Your task to perform on an android device: Add "razer kraken" to the cart on ebay, then select checkout. Image 0: 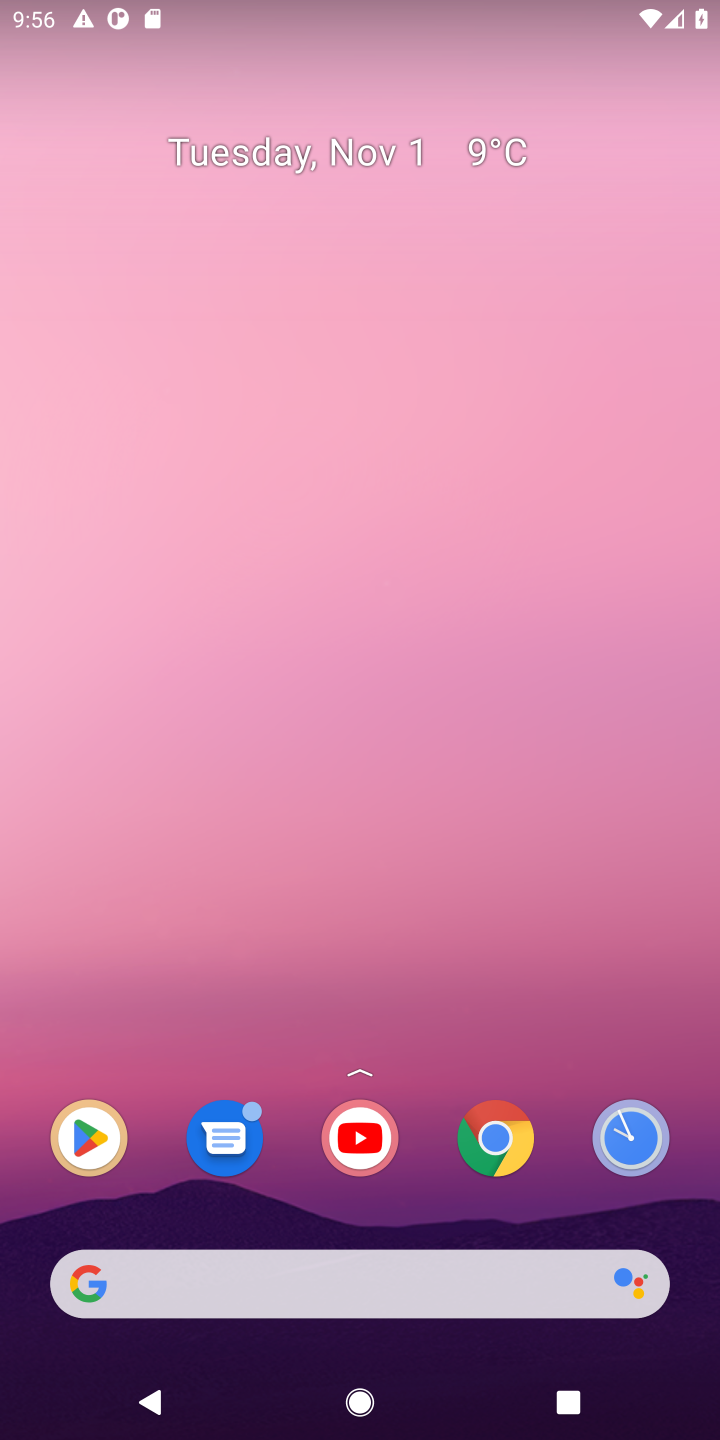
Step 0: press home button
Your task to perform on an android device: Add "razer kraken" to the cart on ebay, then select checkout. Image 1: 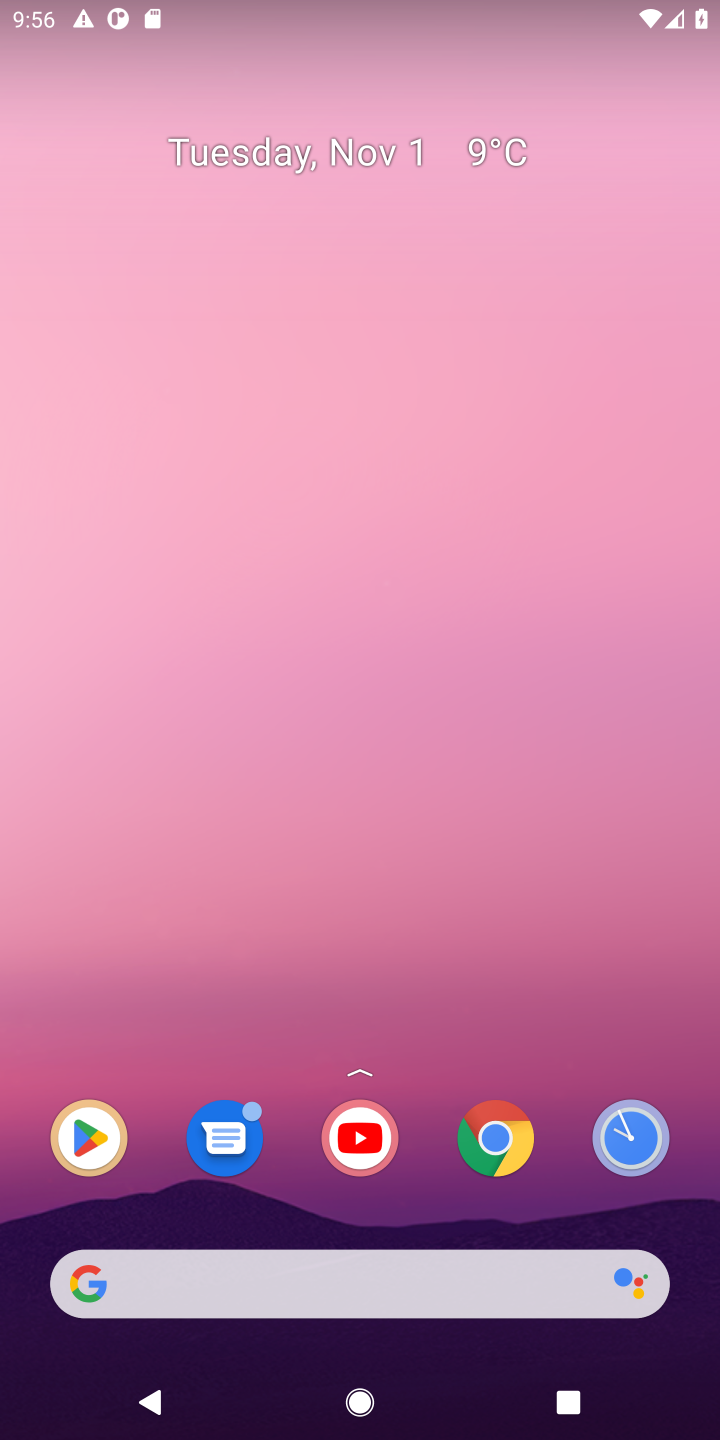
Step 1: drag from (471, 366) to (487, 45)
Your task to perform on an android device: Add "razer kraken" to the cart on ebay, then select checkout. Image 2: 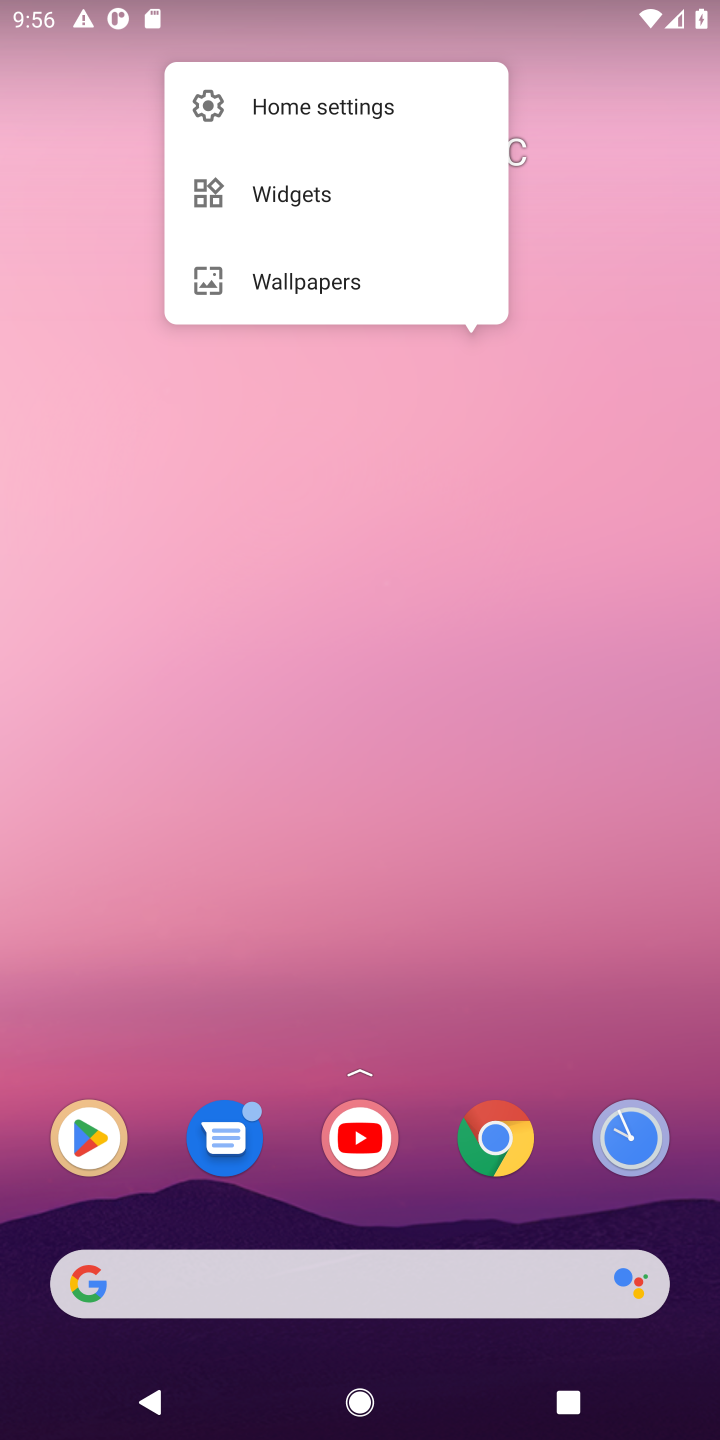
Step 2: click (332, 918)
Your task to perform on an android device: Add "razer kraken" to the cart on ebay, then select checkout. Image 3: 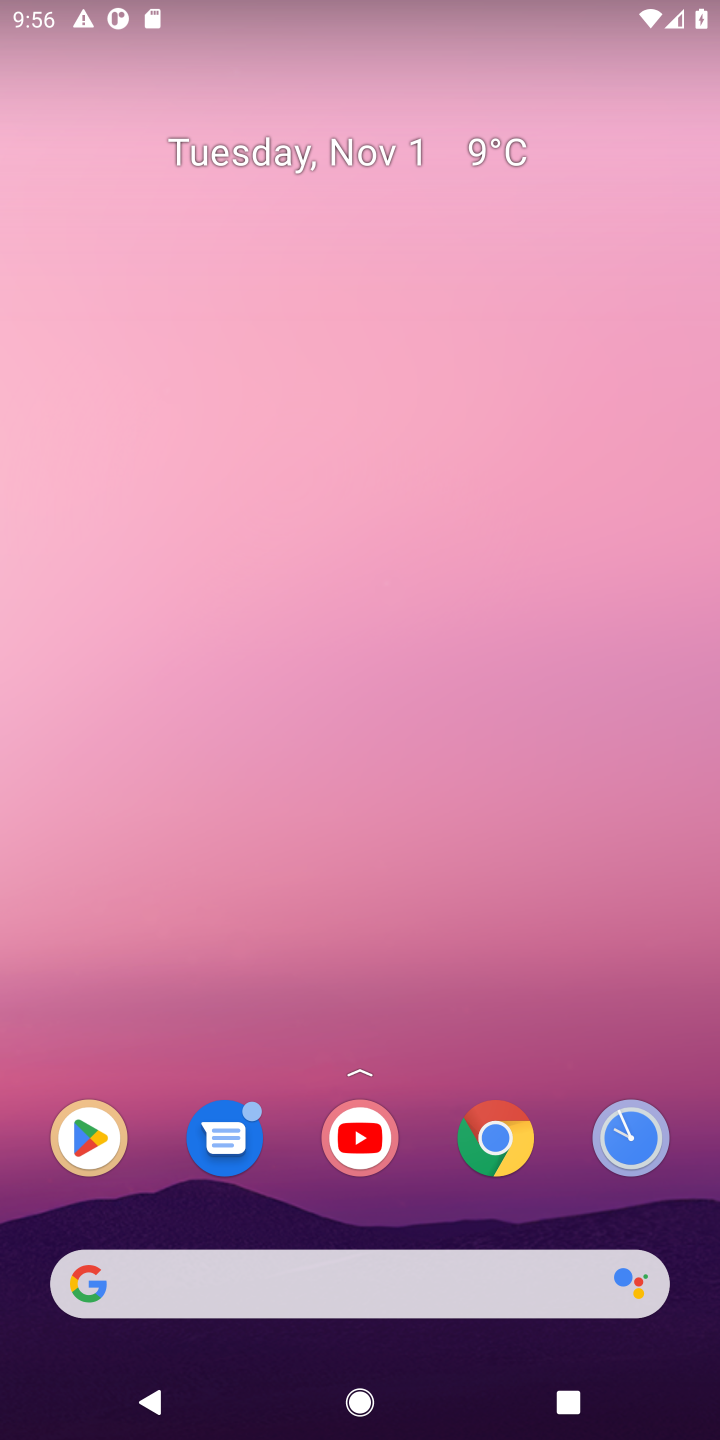
Step 3: drag from (424, 1076) to (395, 114)
Your task to perform on an android device: Add "razer kraken" to the cart on ebay, then select checkout. Image 4: 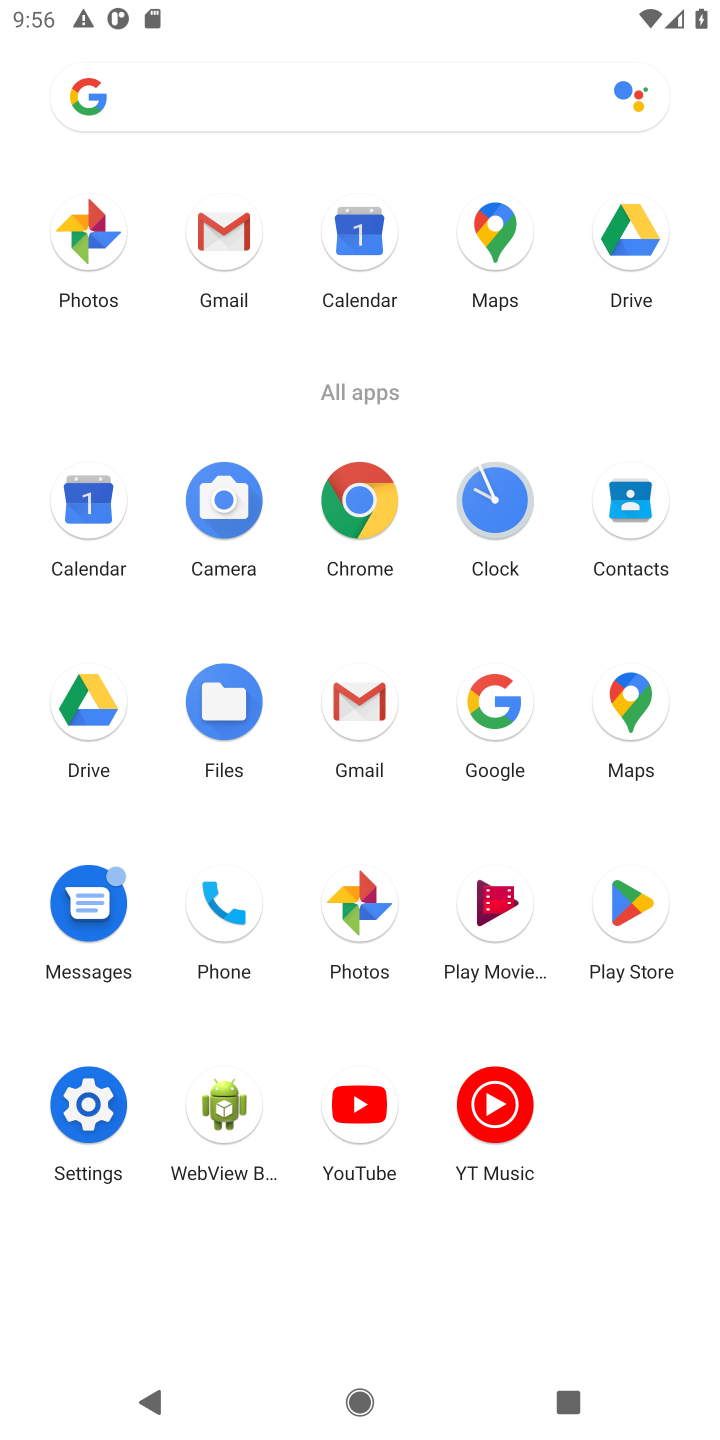
Step 4: click (356, 507)
Your task to perform on an android device: Add "razer kraken" to the cart on ebay, then select checkout. Image 5: 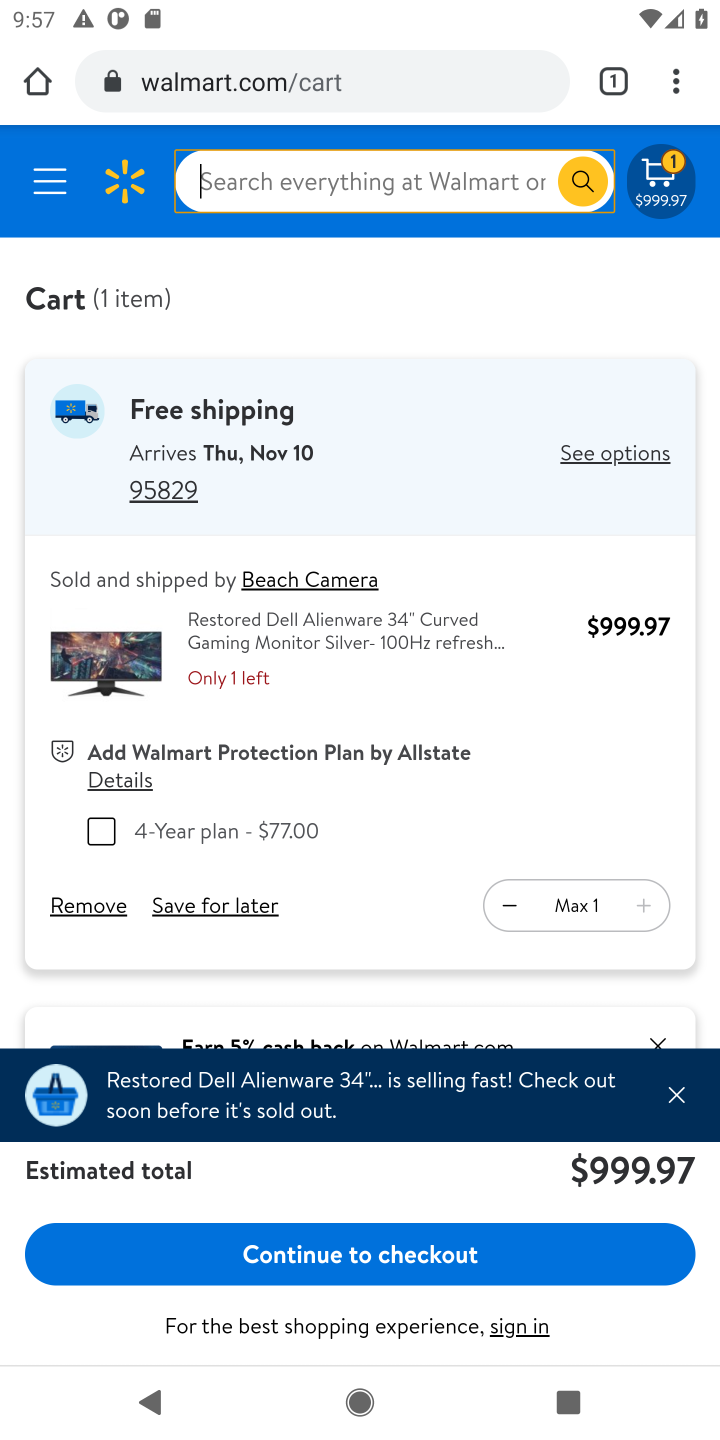
Step 5: click (194, 61)
Your task to perform on an android device: Add "razer kraken" to the cart on ebay, then select checkout. Image 6: 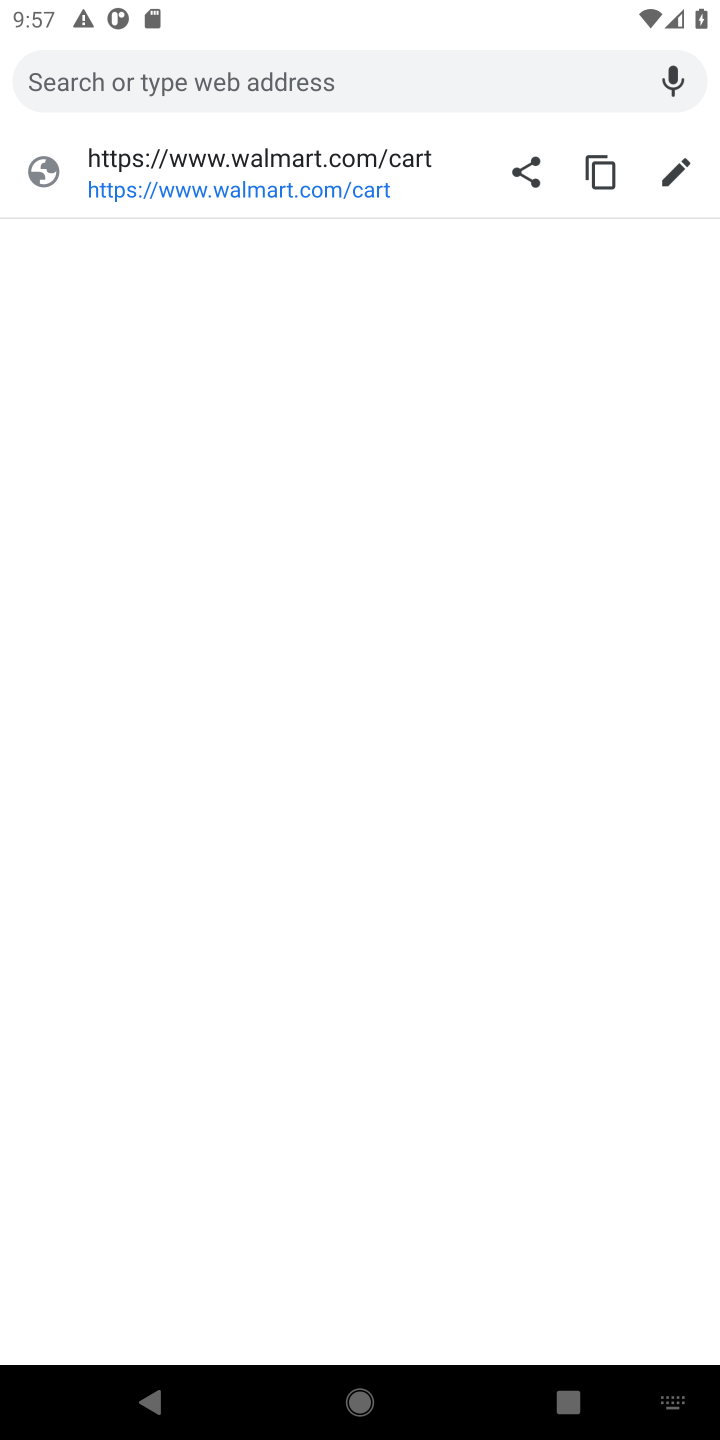
Step 6: type "ebay"
Your task to perform on an android device: Add "razer kraken" to the cart on ebay, then select checkout. Image 7: 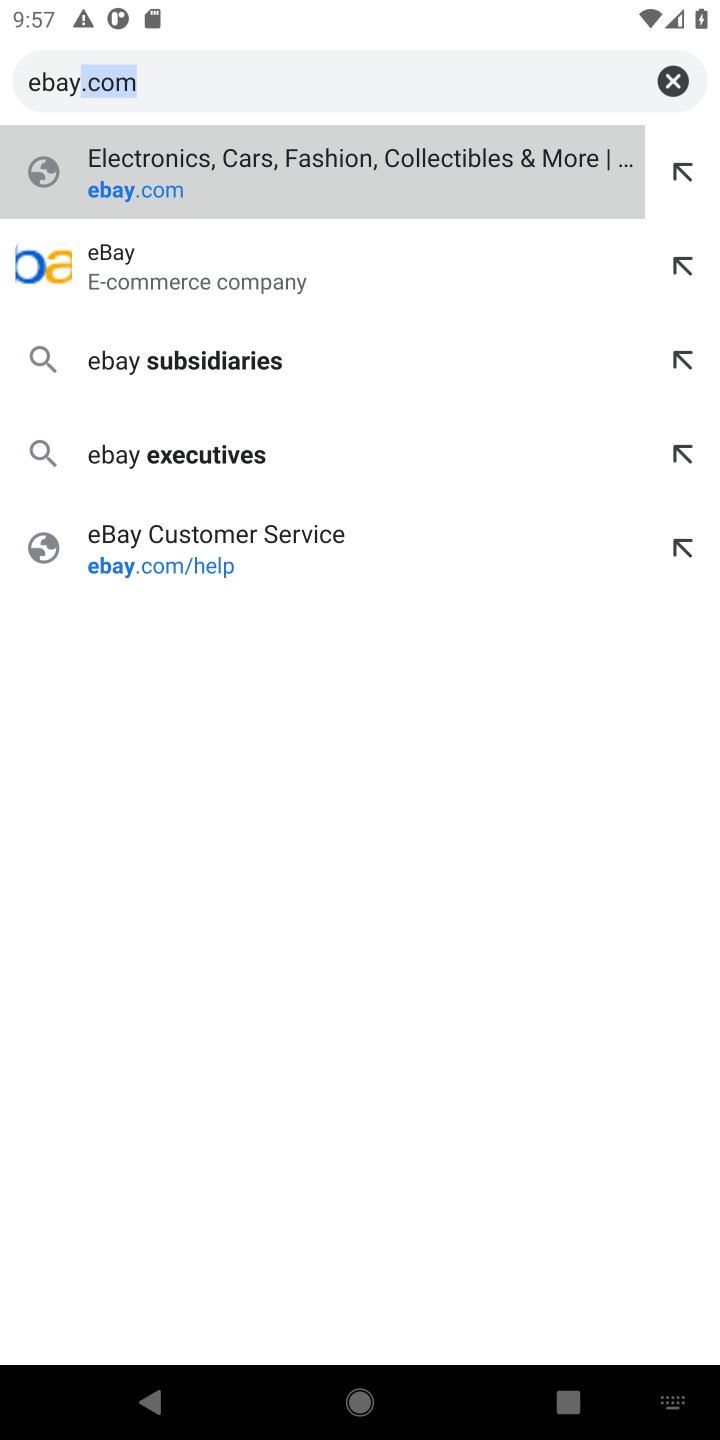
Step 7: click (163, 180)
Your task to perform on an android device: Add "razer kraken" to the cart on ebay, then select checkout. Image 8: 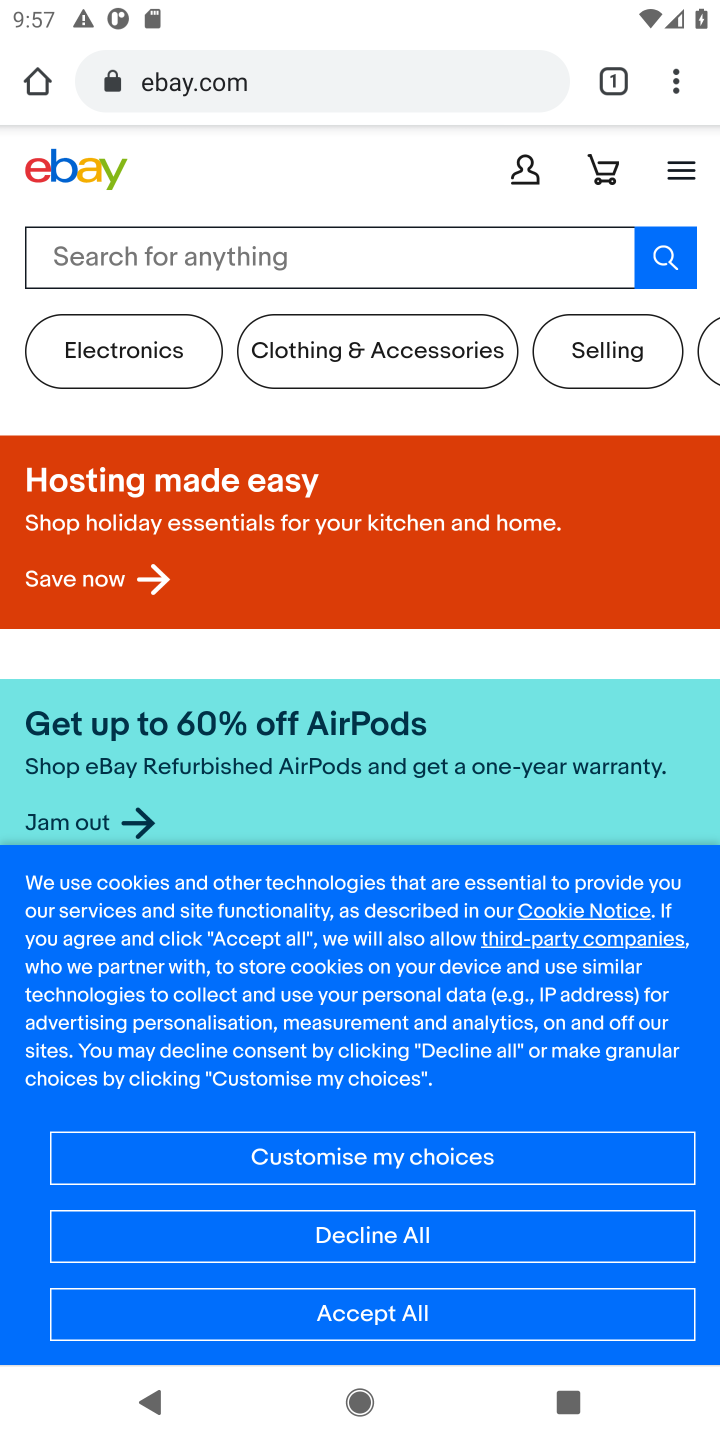
Step 8: click (170, 255)
Your task to perform on an android device: Add "razer kraken" to the cart on ebay, then select checkout. Image 9: 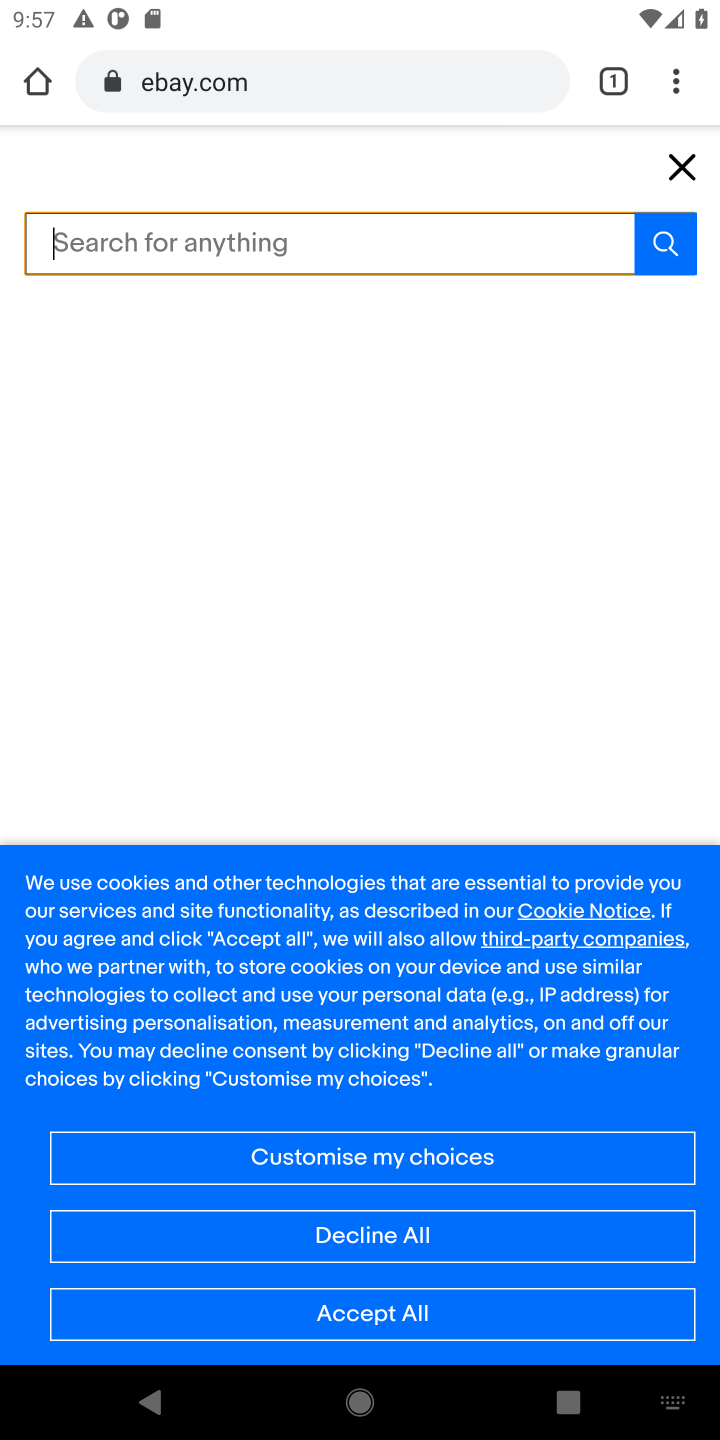
Step 9: type "razer kraken"
Your task to perform on an android device: Add "razer kraken" to the cart on ebay, then select checkout. Image 10: 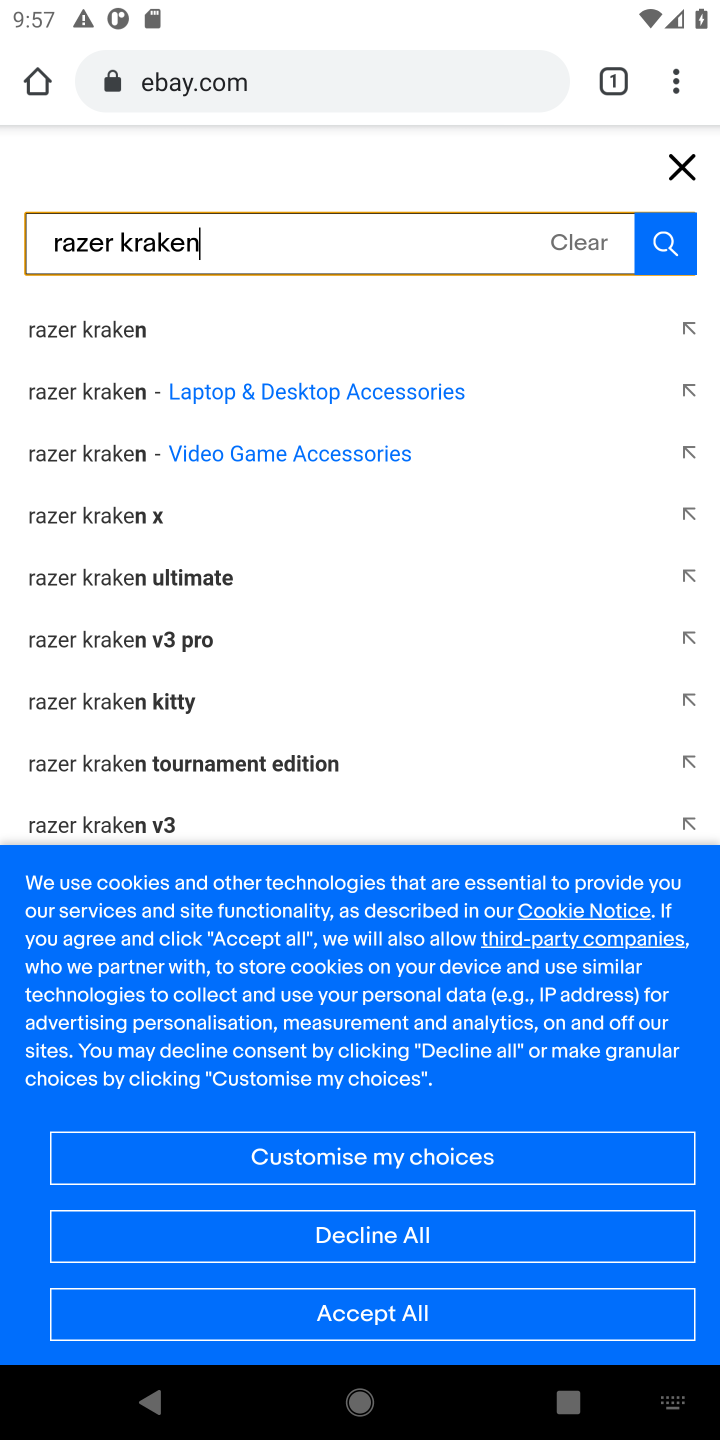
Step 10: click (93, 395)
Your task to perform on an android device: Add "razer kraken" to the cart on ebay, then select checkout. Image 11: 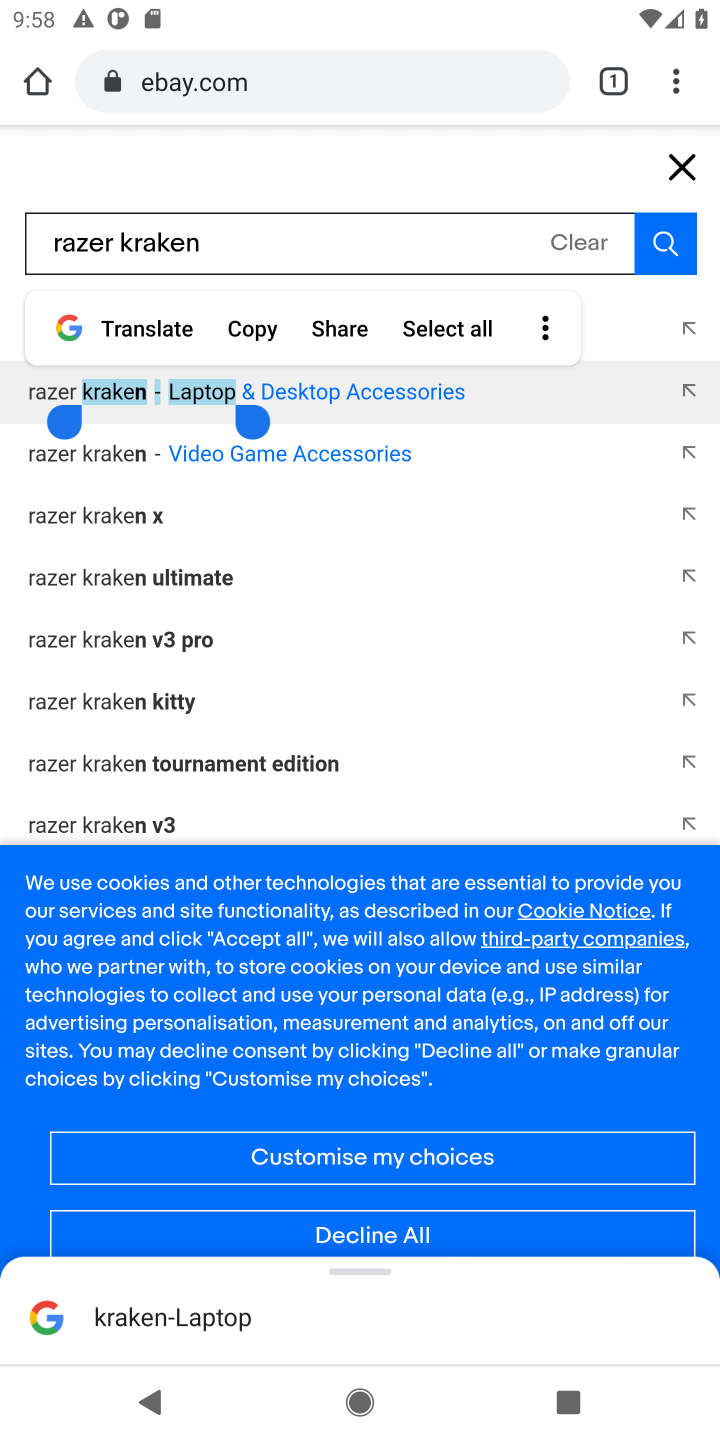
Step 11: click (437, 392)
Your task to perform on an android device: Add "razer kraken" to the cart on ebay, then select checkout. Image 12: 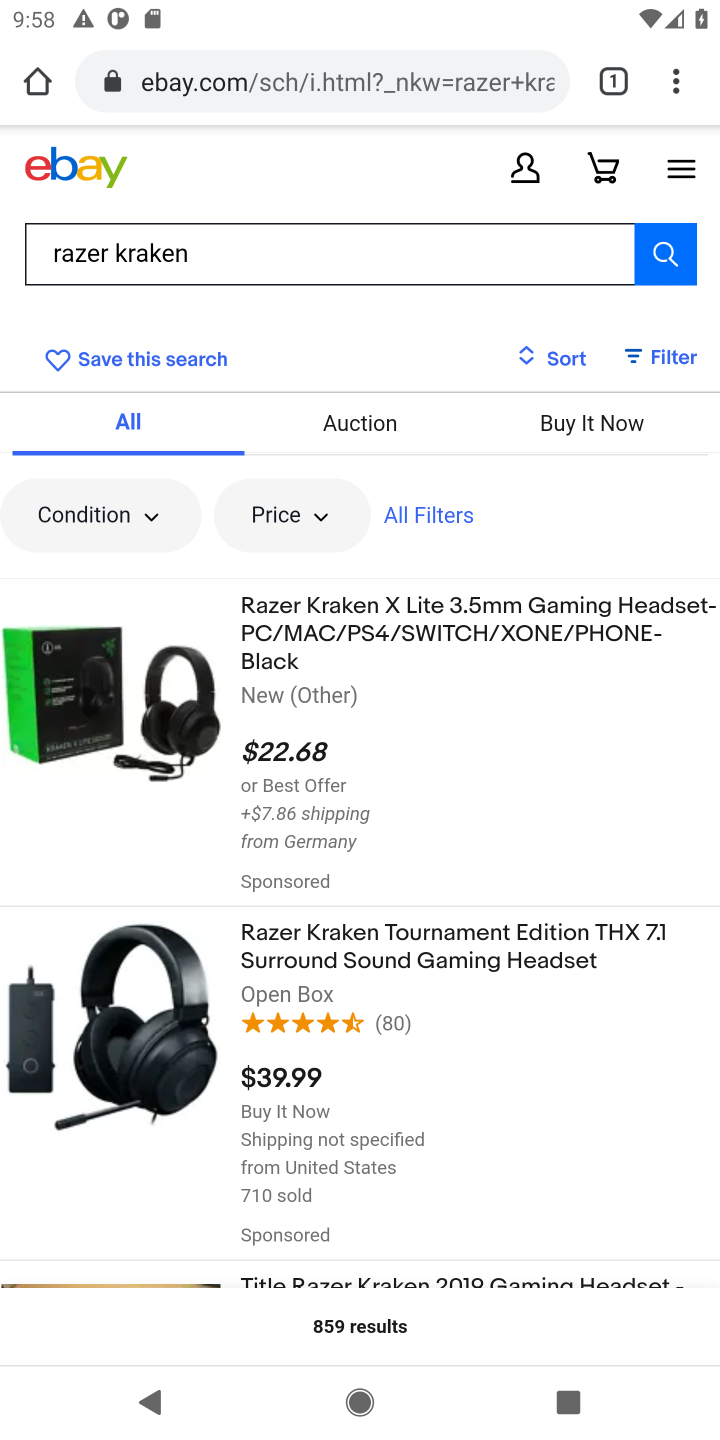
Step 12: click (345, 634)
Your task to perform on an android device: Add "razer kraken" to the cart on ebay, then select checkout. Image 13: 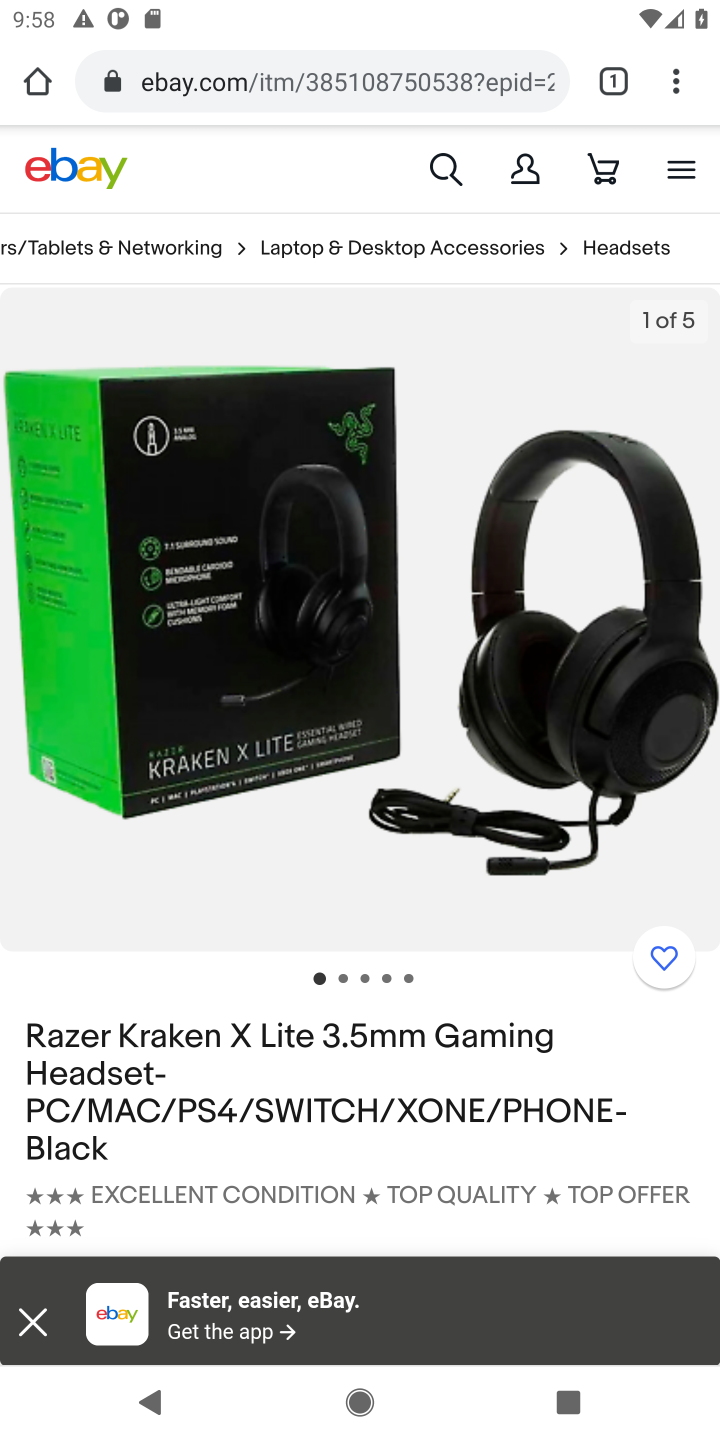
Step 13: drag from (379, 1139) to (390, 314)
Your task to perform on an android device: Add "razer kraken" to the cart on ebay, then select checkout. Image 14: 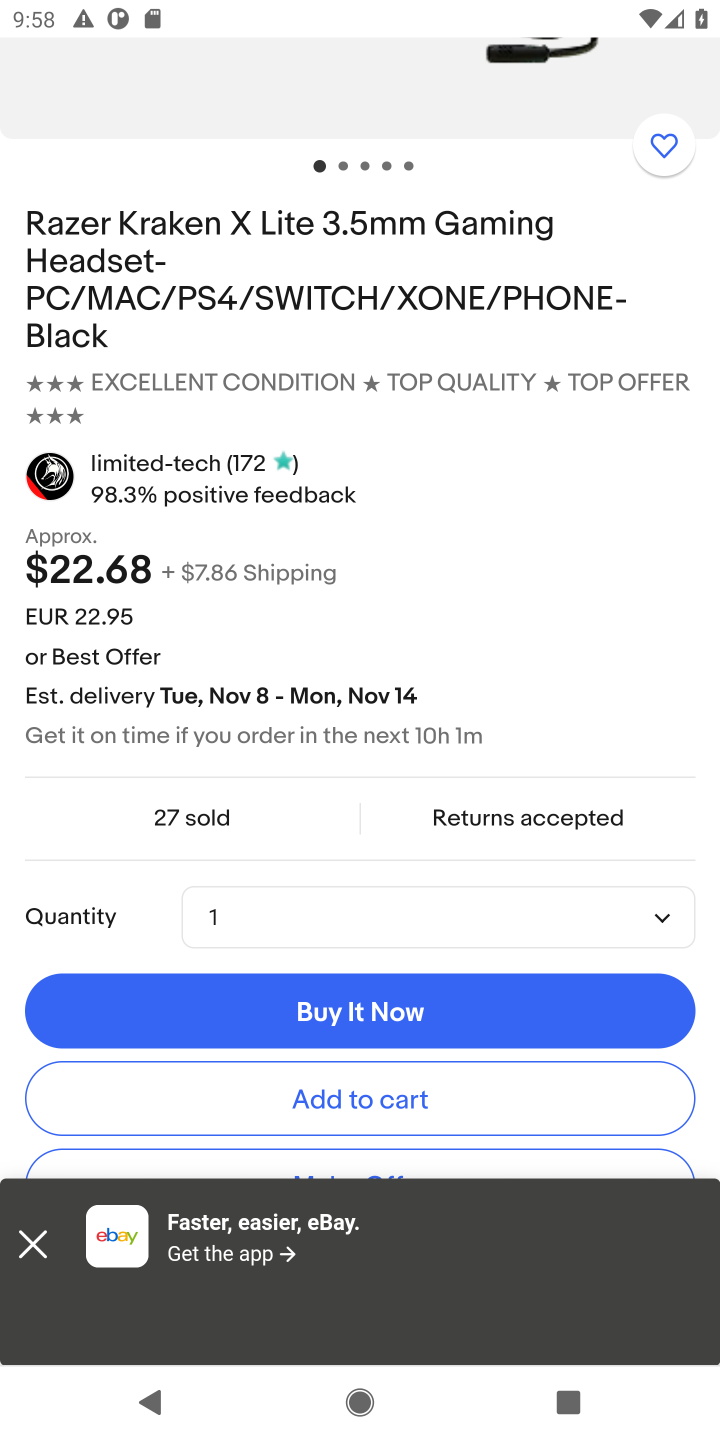
Step 14: click (355, 1091)
Your task to perform on an android device: Add "razer kraken" to the cart on ebay, then select checkout. Image 15: 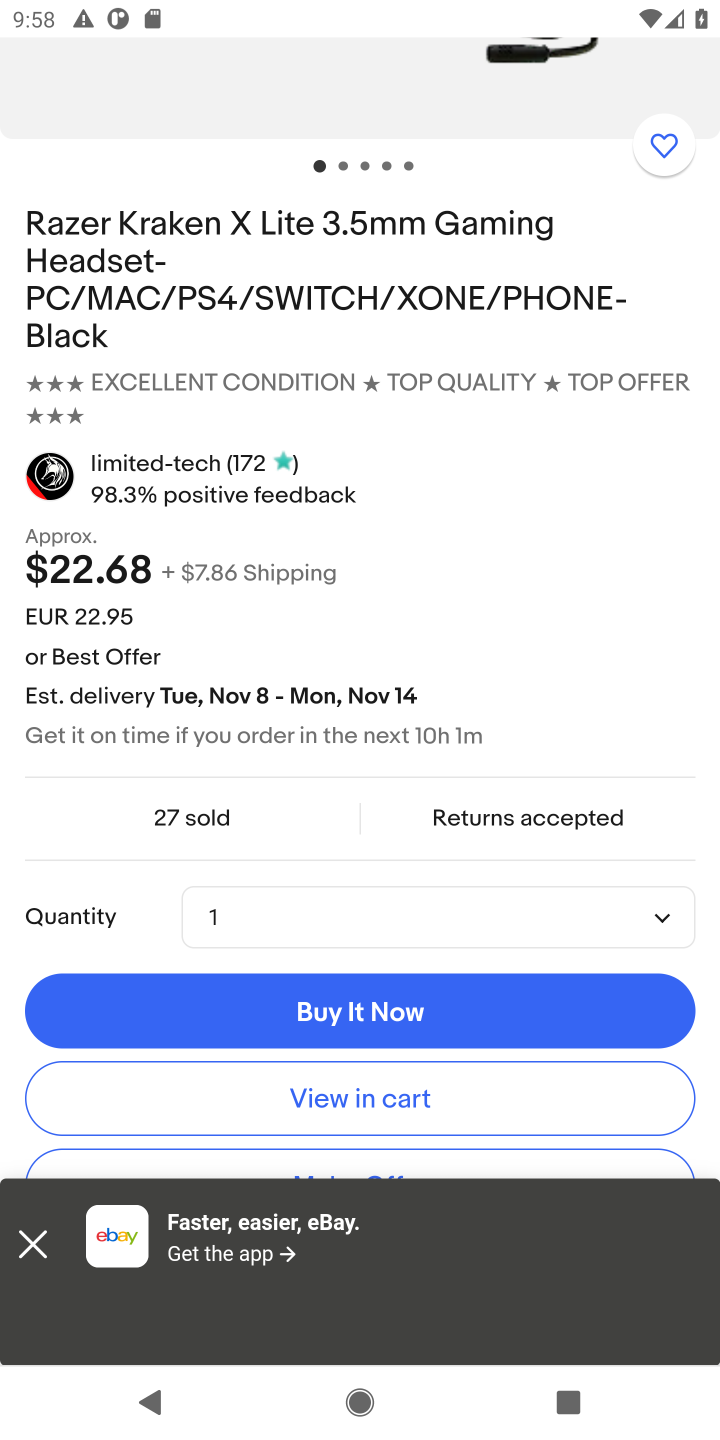
Step 15: click (355, 1091)
Your task to perform on an android device: Add "razer kraken" to the cart on ebay, then select checkout. Image 16: 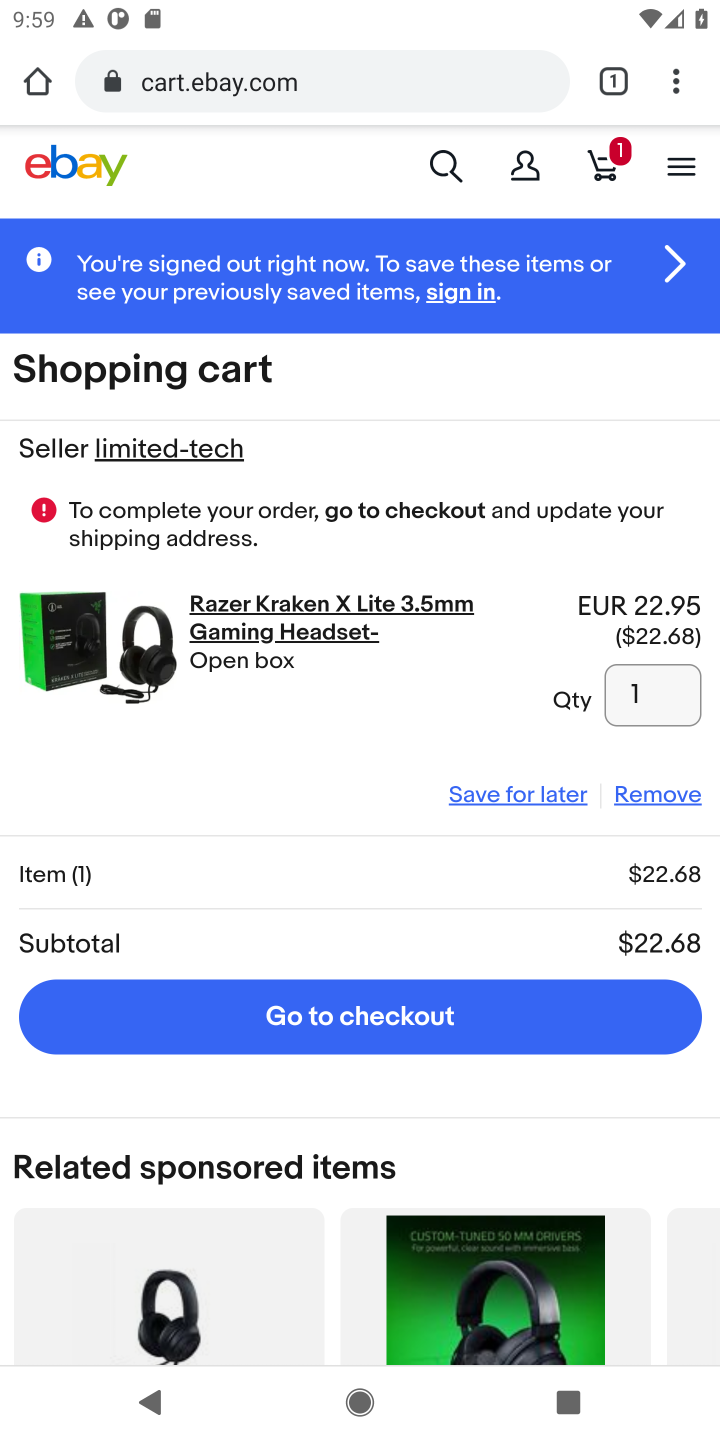
Step 16: click (393, 1010)
Your task to perform on an android device: Add "razer kraken" to the cart on ebay, then select checkout. Image 17: 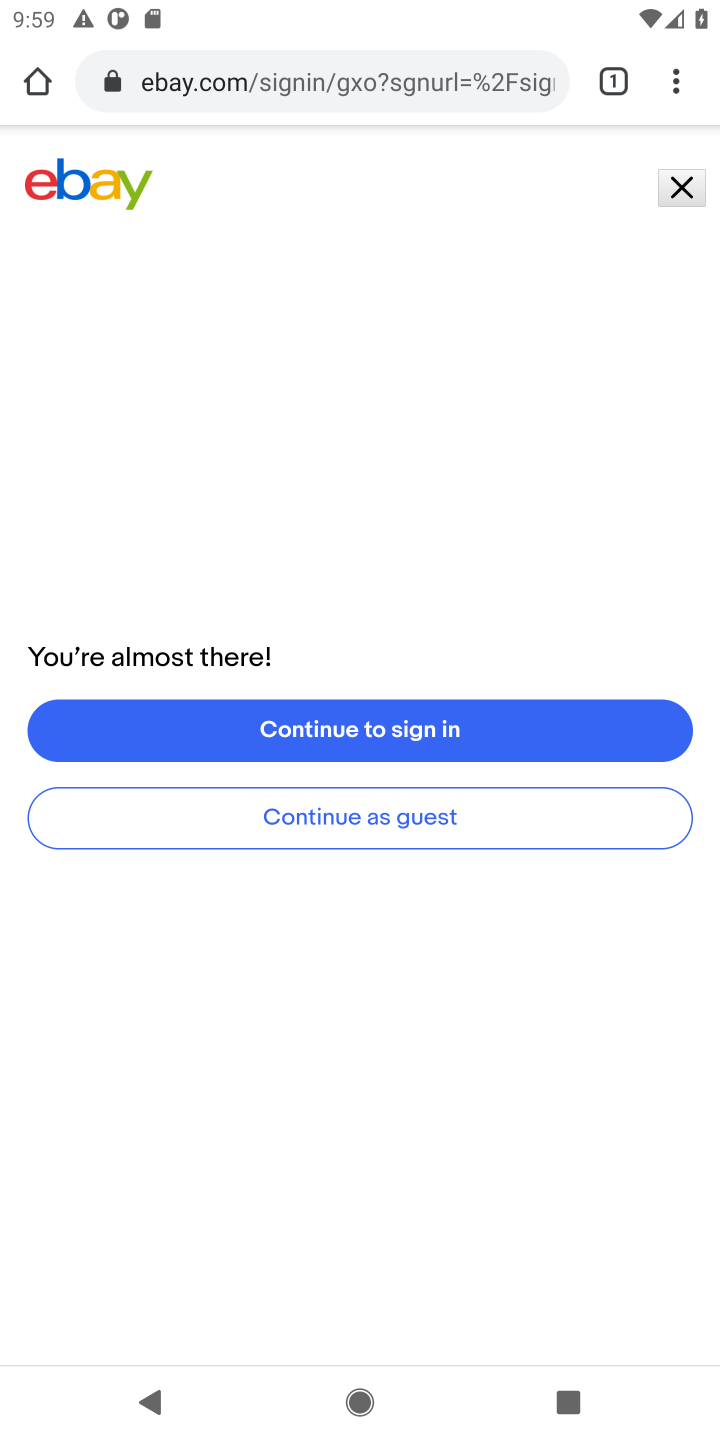
Step 17: task complete